Your task to perform on an android device: Open the calendar app, open the side menu, and click the "Day" option Image 0: 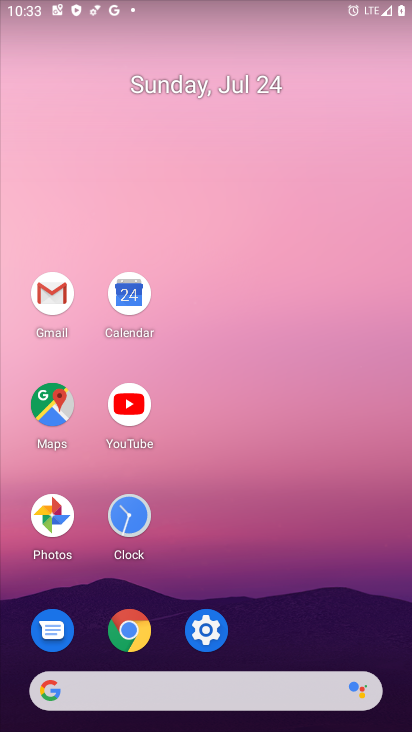
Step 0: click (123, 298)
Your task to perform on an android device: Open the calendar app, open the side menu, and click the "Day" option Image 1: 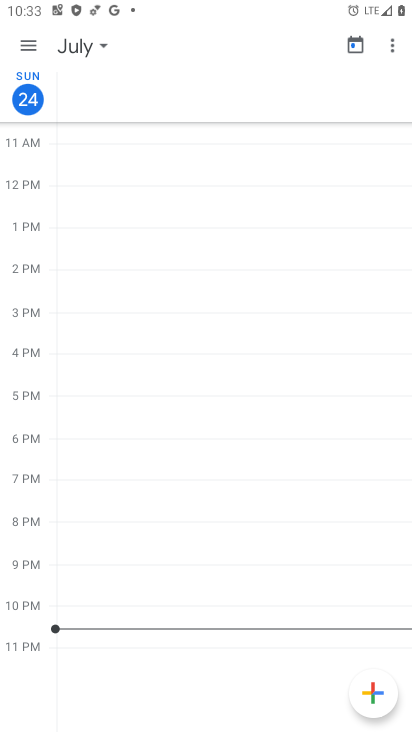
Step 1: click (31, 42)
Your task to perform on an android device: Open the calendar app, open the side menu, and click the "Day" option Image 2: 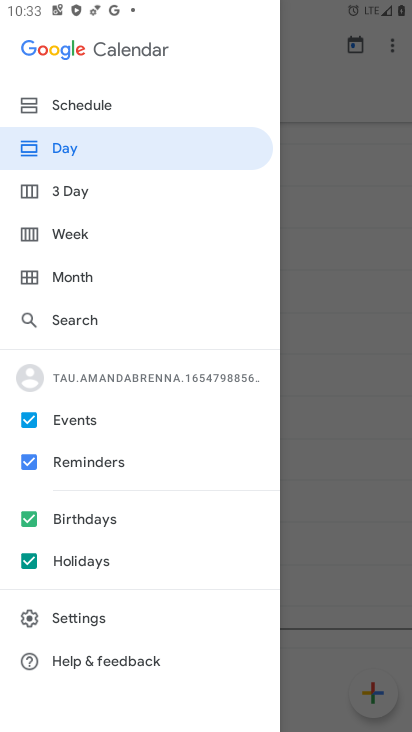
Step 2: click (58, 150)
Your task to perform on an android device: Open the calendar app, open the side menu, and click the "Day" option Image 3: 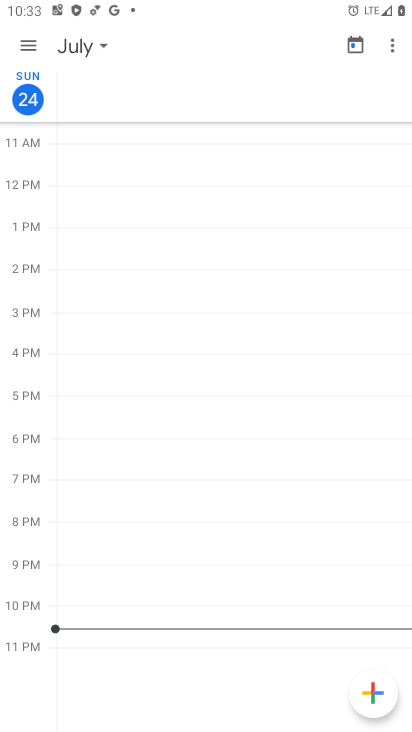
Step 3: task complete